Your task to perform on an android device: change text size in settings app Image 0: 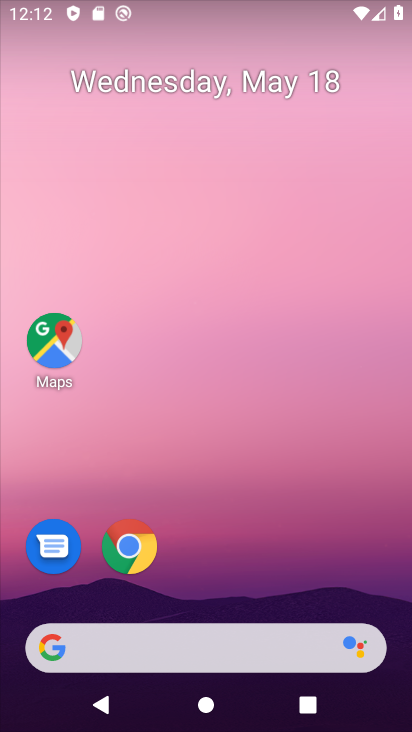
Step 0: press home button
Your task to perform on an android device: change text size in settings app Image 1: 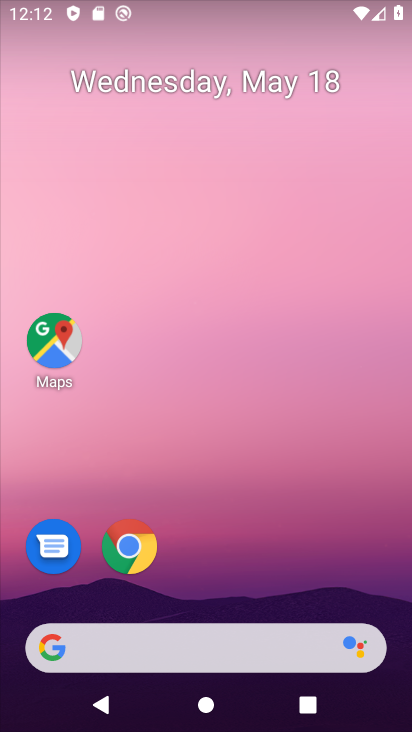
Step 1: press home button
Your task to perform on an android device: change text size in settings app Image 2: 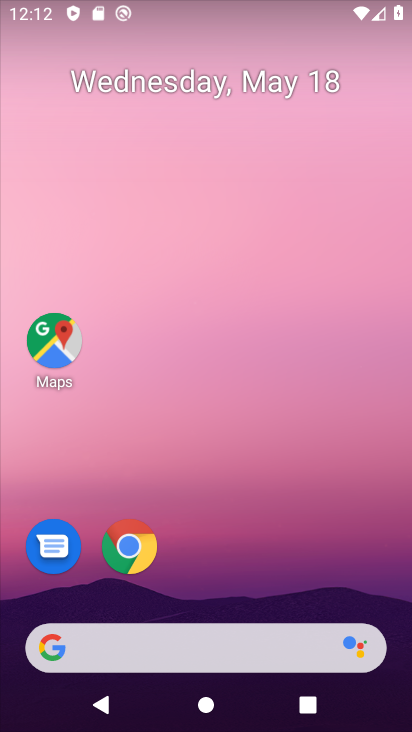
Step 2: drag from (248, 489) to (369, 16)
Your task to perform on an android device: change text size in settings app Image 3: 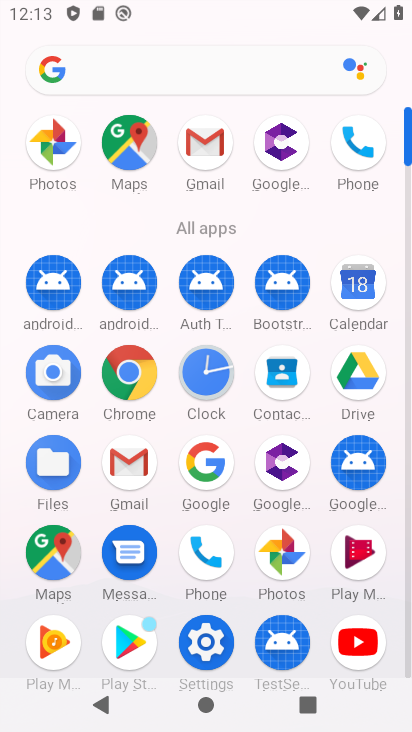
Step 3: click (218, 637)
Your task to perform on an android device: change text size in settings app Image 4: 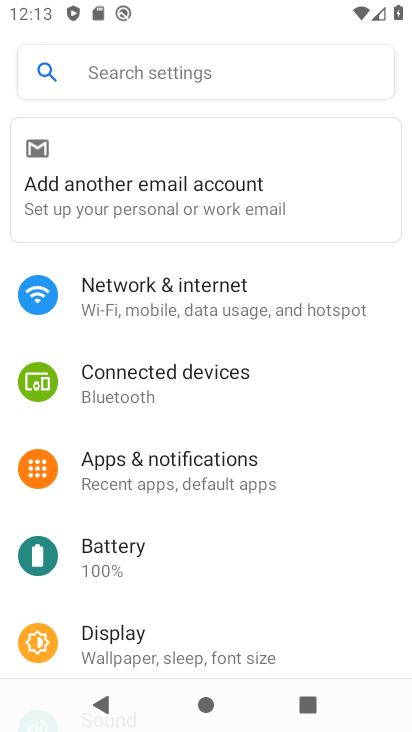
Step 4: click (98, 641)
Your task to perform on an android device: change text size in settings app Image 5: 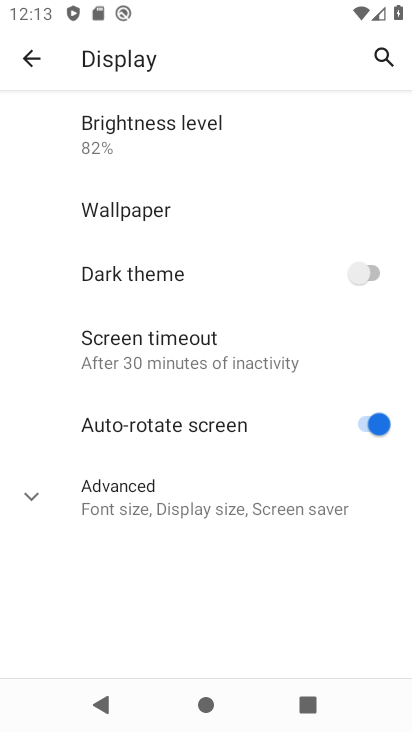
Step 5: click (141, 480)
Your task to perform on an android device: change text size in settings app Image 6: 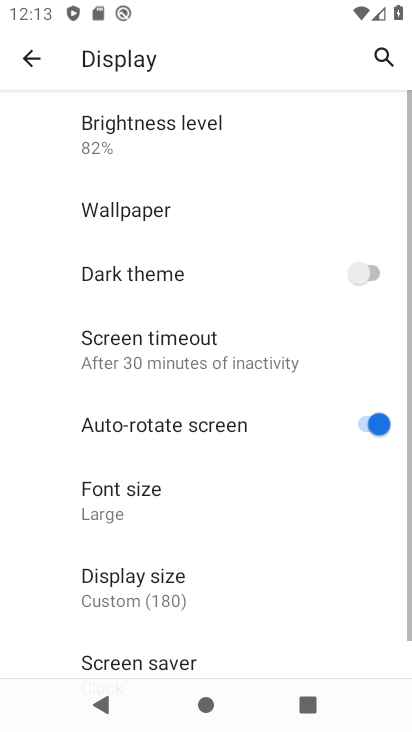
Step 6: click (146, 498)
Your task to perform on an android device: change text size in settings app Image 7: 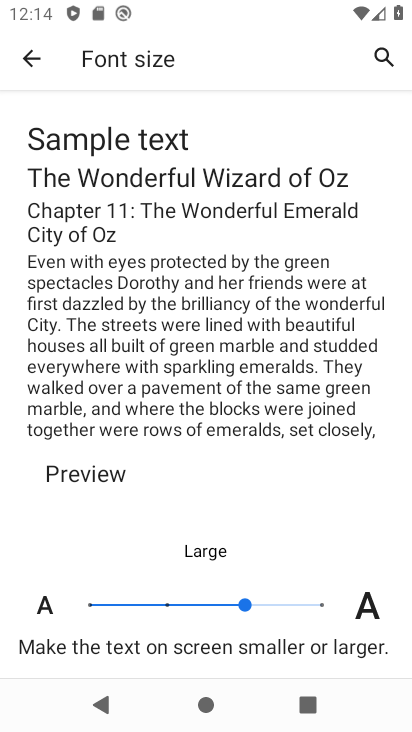
Step 7: click (60, 605)
Your task to perform on an android device: change text size in settings app Image 8: 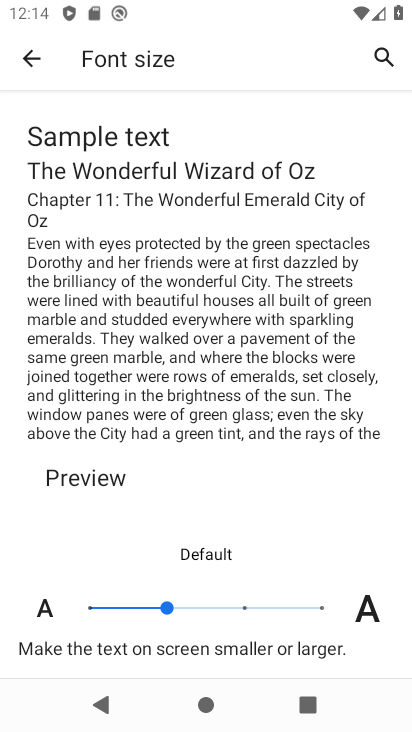
Step 8: task complete